Your task to perform on an android device: turn off translation in the chrome app Image 0: 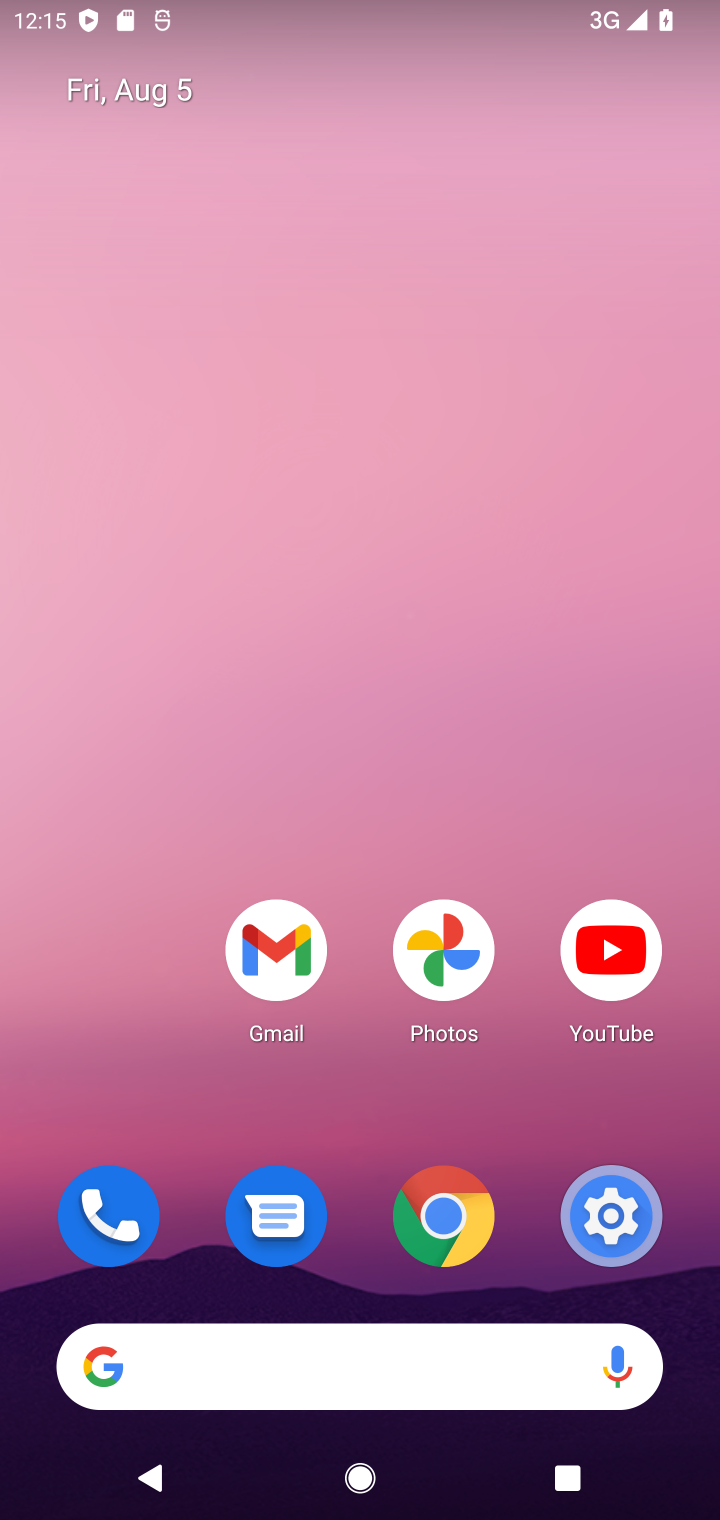
Step 0: drag from (386, 1339) to (374, 94)
Your task to perform on an android device: turn off translation in the chrome app Image 1: 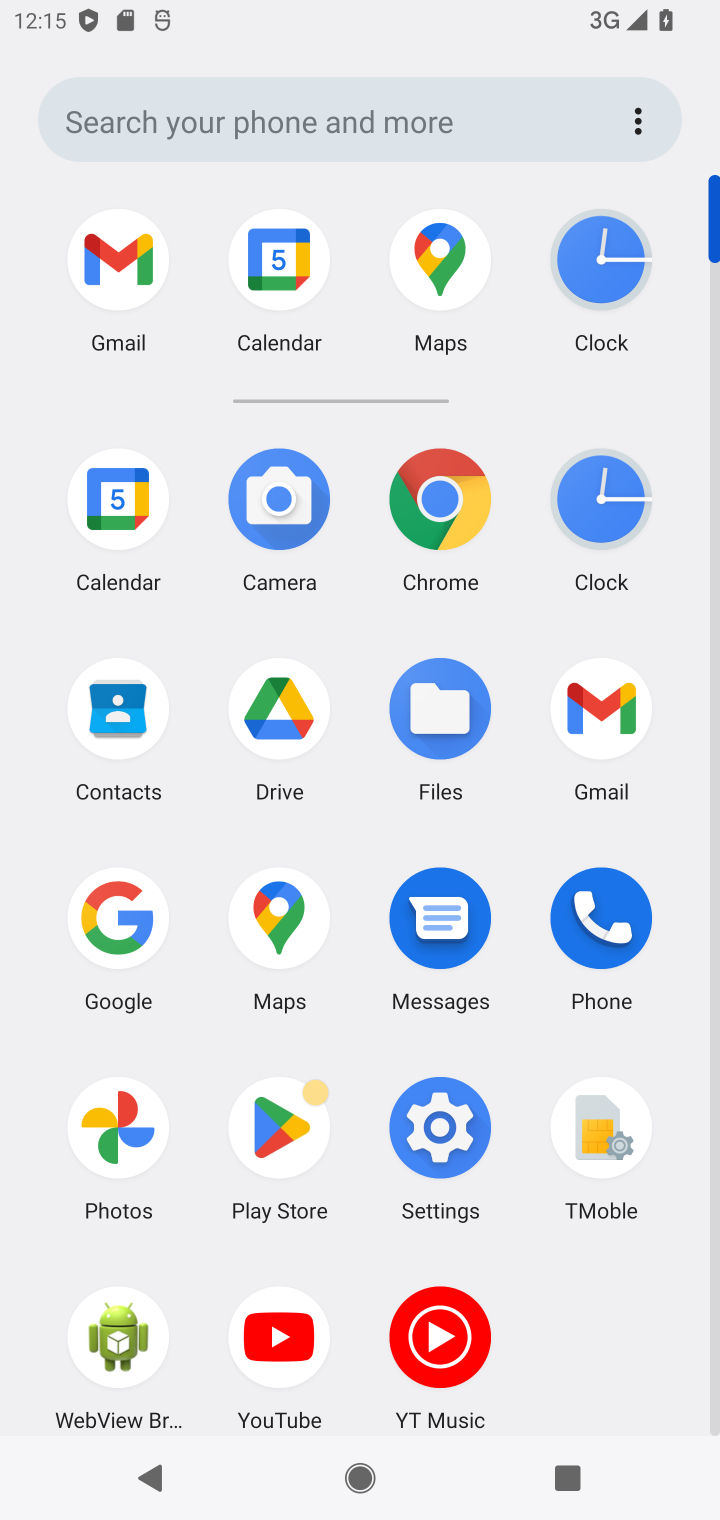
Step 1: click (454, 499)
Your task to perform on an android device: turn off translation in the chrome app Image 2: 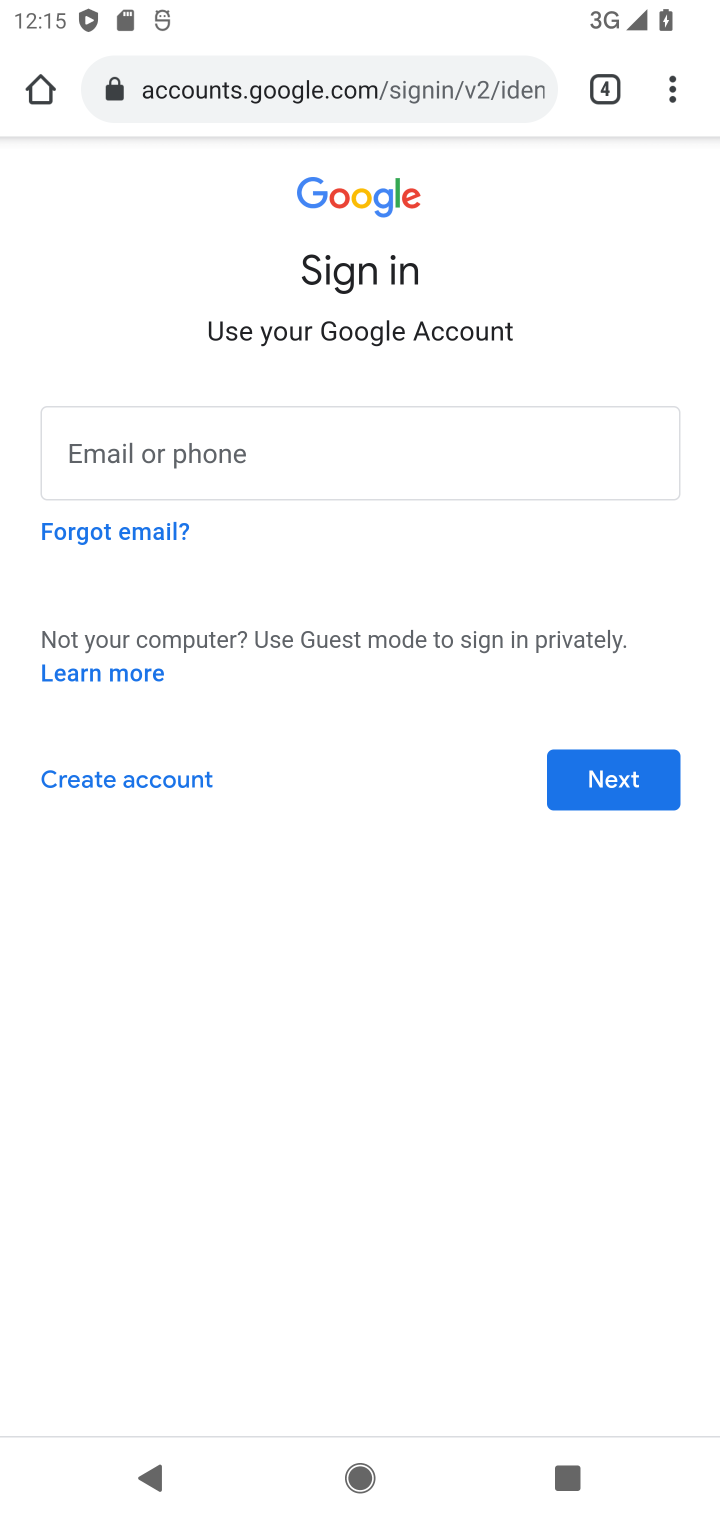
Step 2: drag from (663, 73) to (402, 1216)
Your task to perform on an android device: turn off translation in the chrome app Image 3: 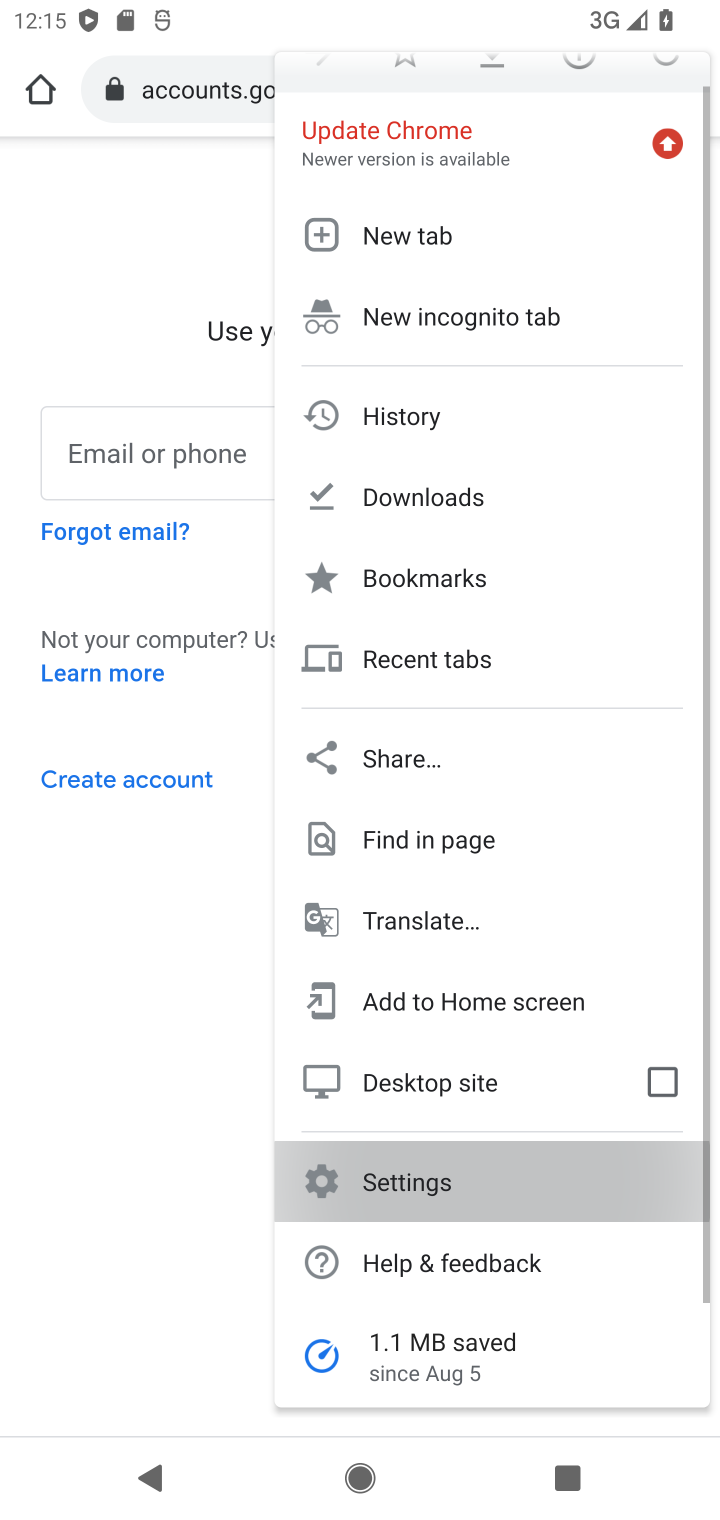
Step 3: click (402, 1216)
Your task to perform on an android device: turn off translation in the chrome app Image 4: 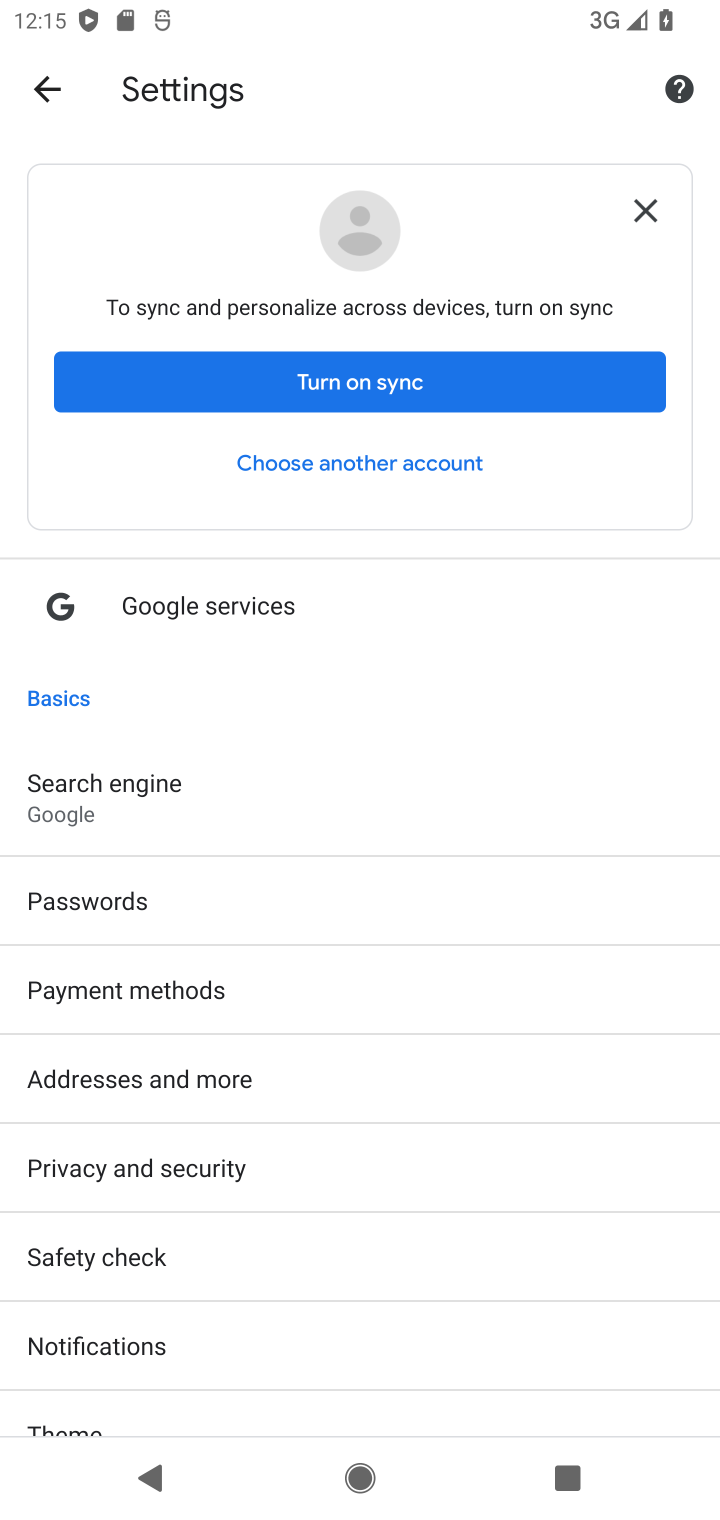
Step 4: drag from (186, 1340) to (290, 620)
Your task to perform on an android device: turn off translation in the chrome app Image 5: 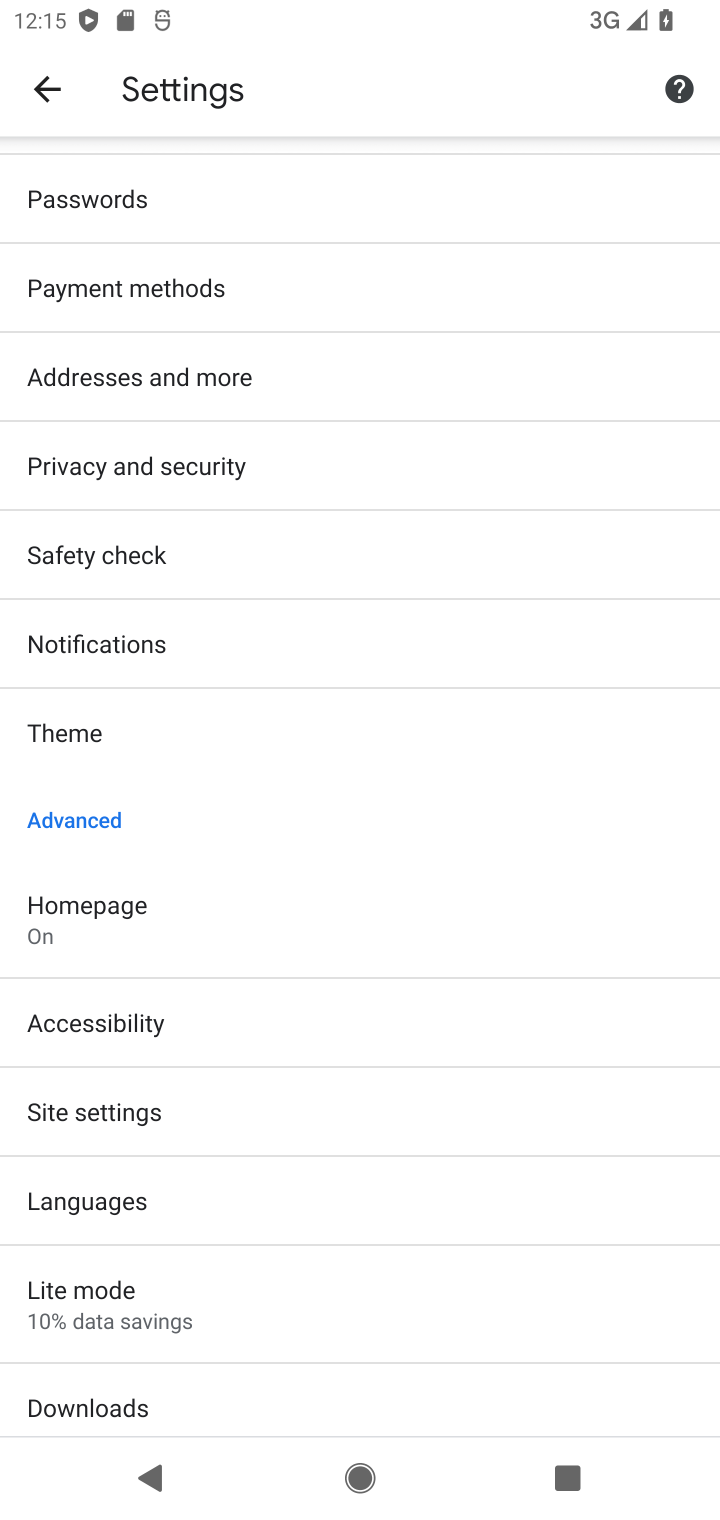
Step 5: click (181, 1092)
Your task to perform on an android device: turn off translation in the chrome app Image 6: 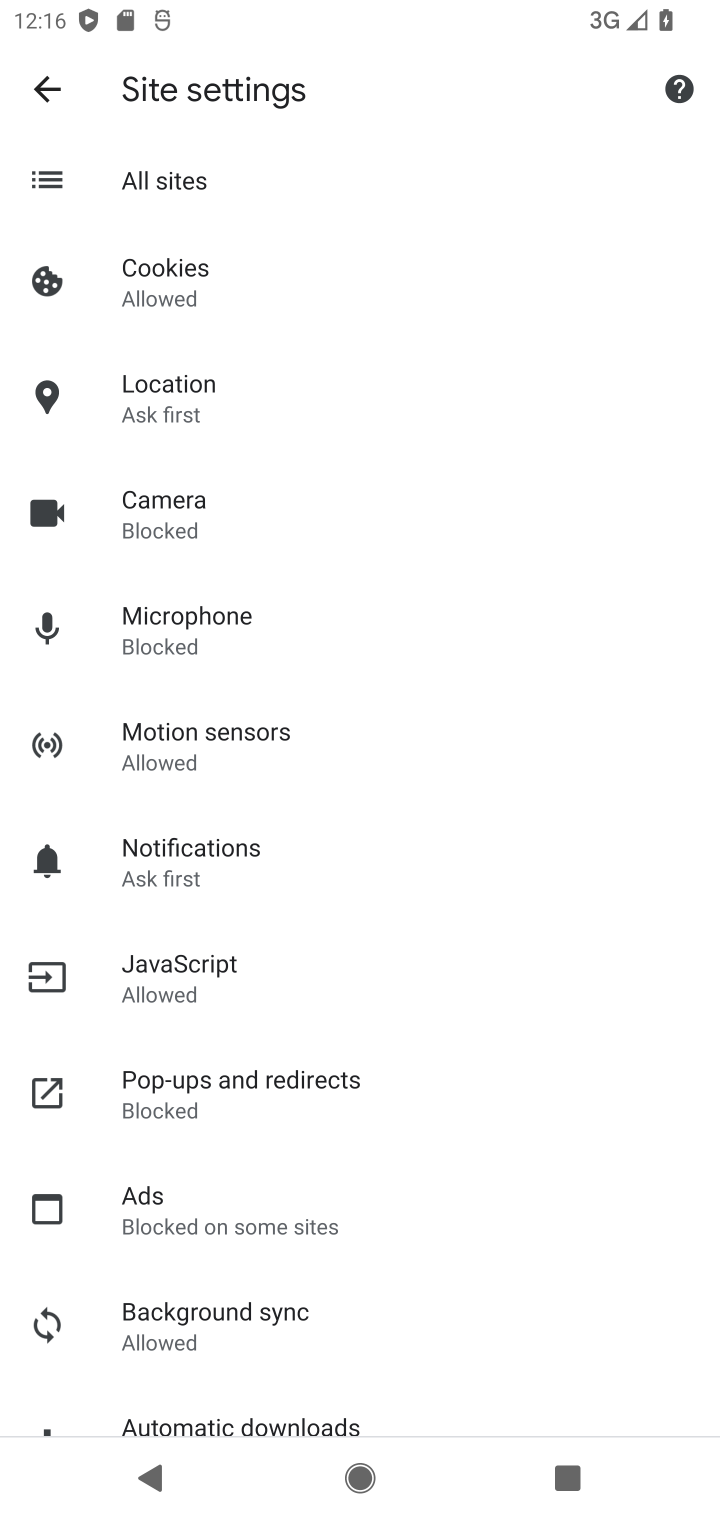
Step 6: press home button
Your task to perform on an android device: turn off translation in the chrome app Image 7: 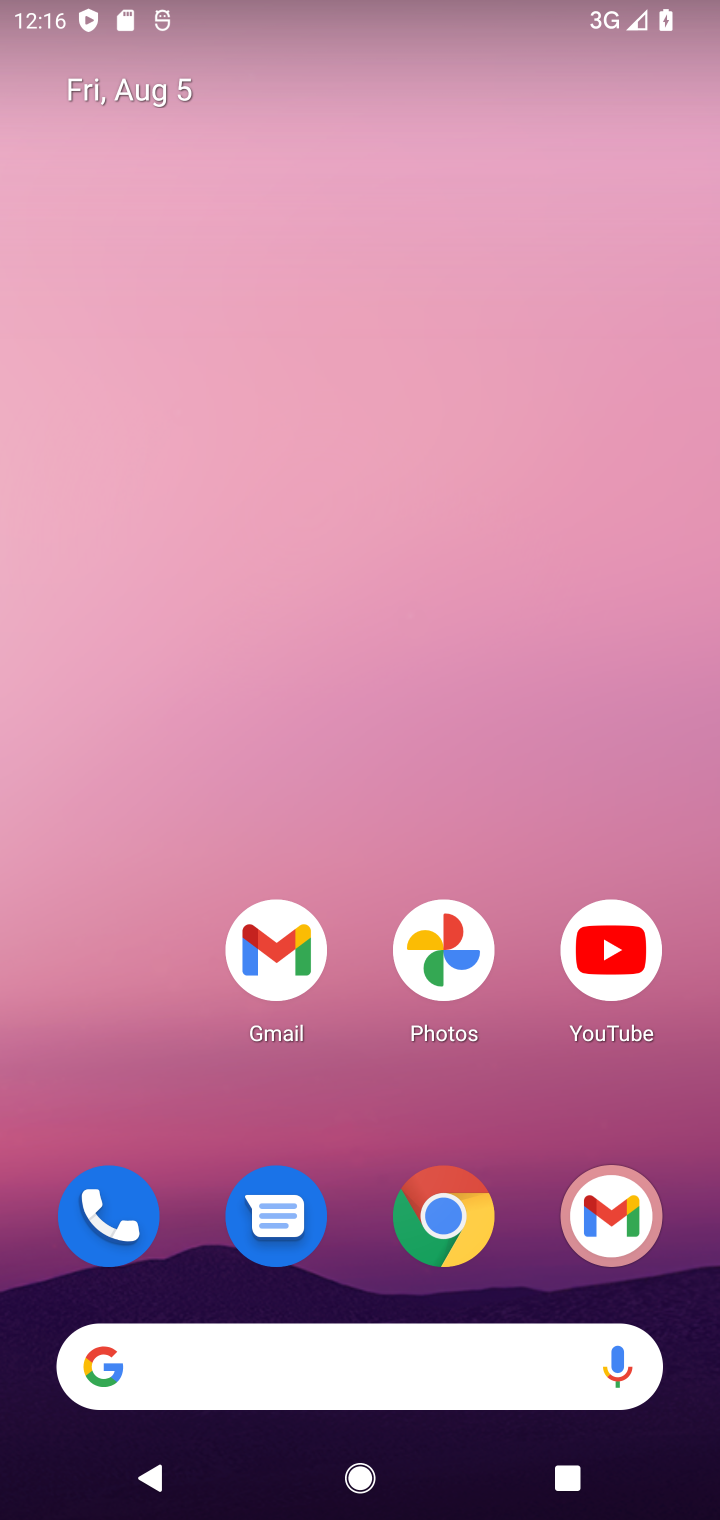
Step 7: drag from (456, 1388) to (443, 333)
Your task to perform on an android device: turn off translation in the chrome app Image 8: 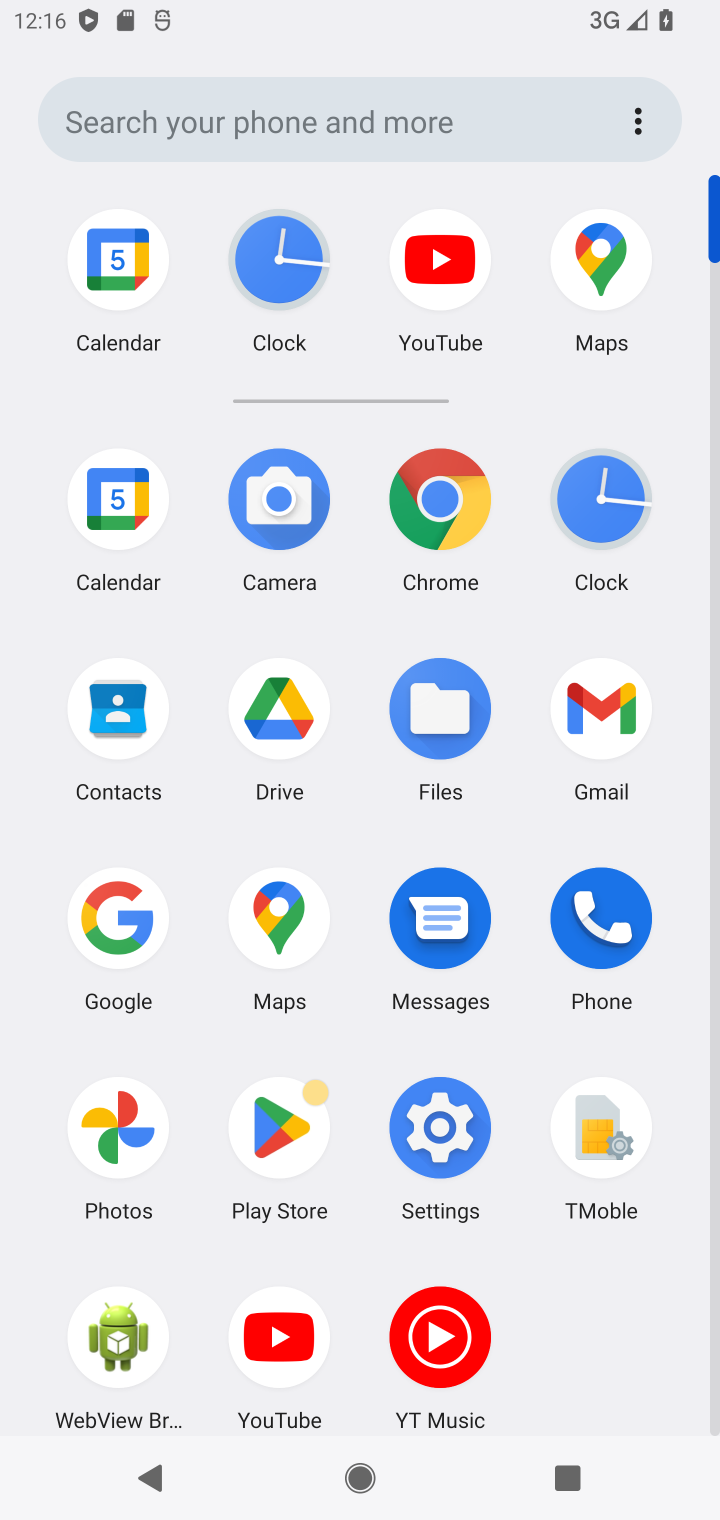
Step 8: click (450, 476)
Your task to perform on an android device: turn off translation in the chrome app Image 9: 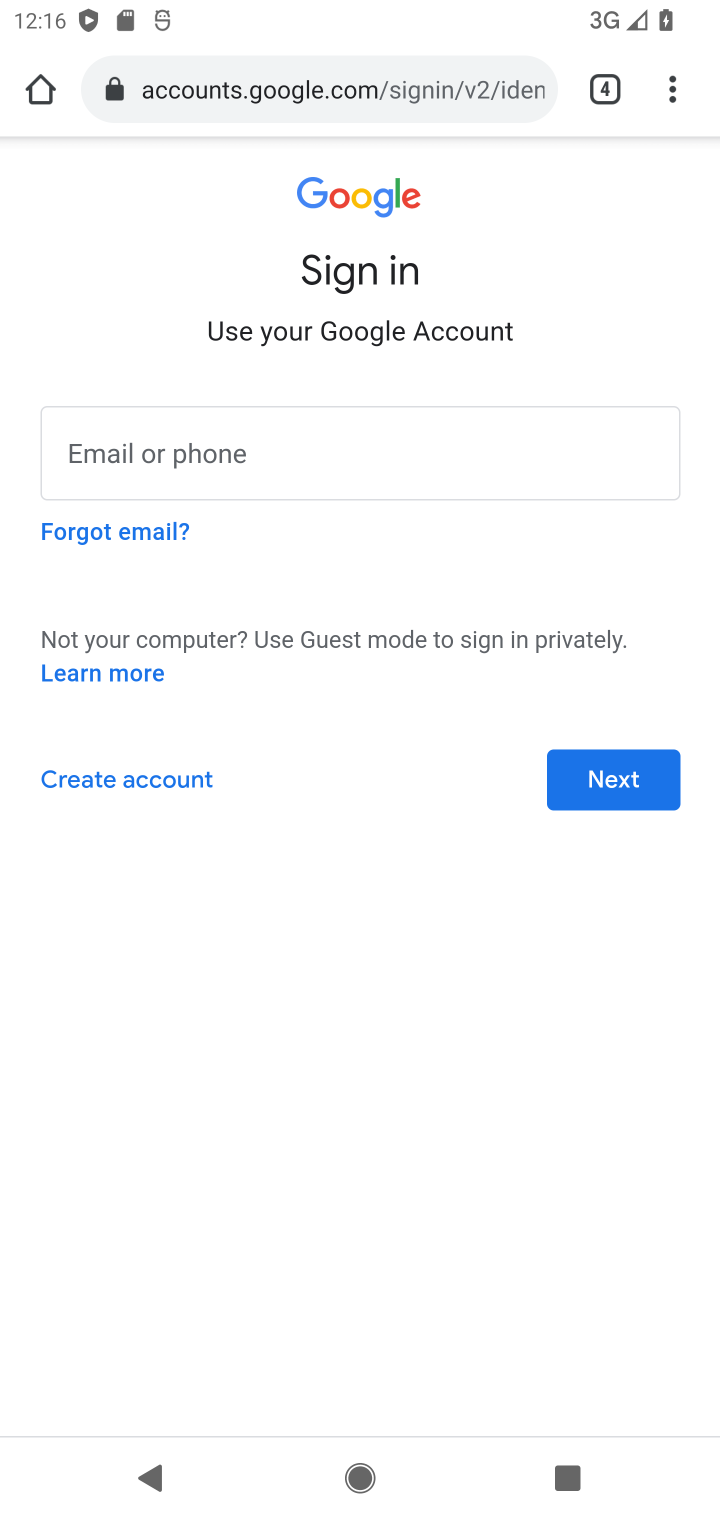
Step 9: drag from (668, 73) to (387, 1215)
Your task to perform on an android device: turn off translation in the chrome app Image 10: 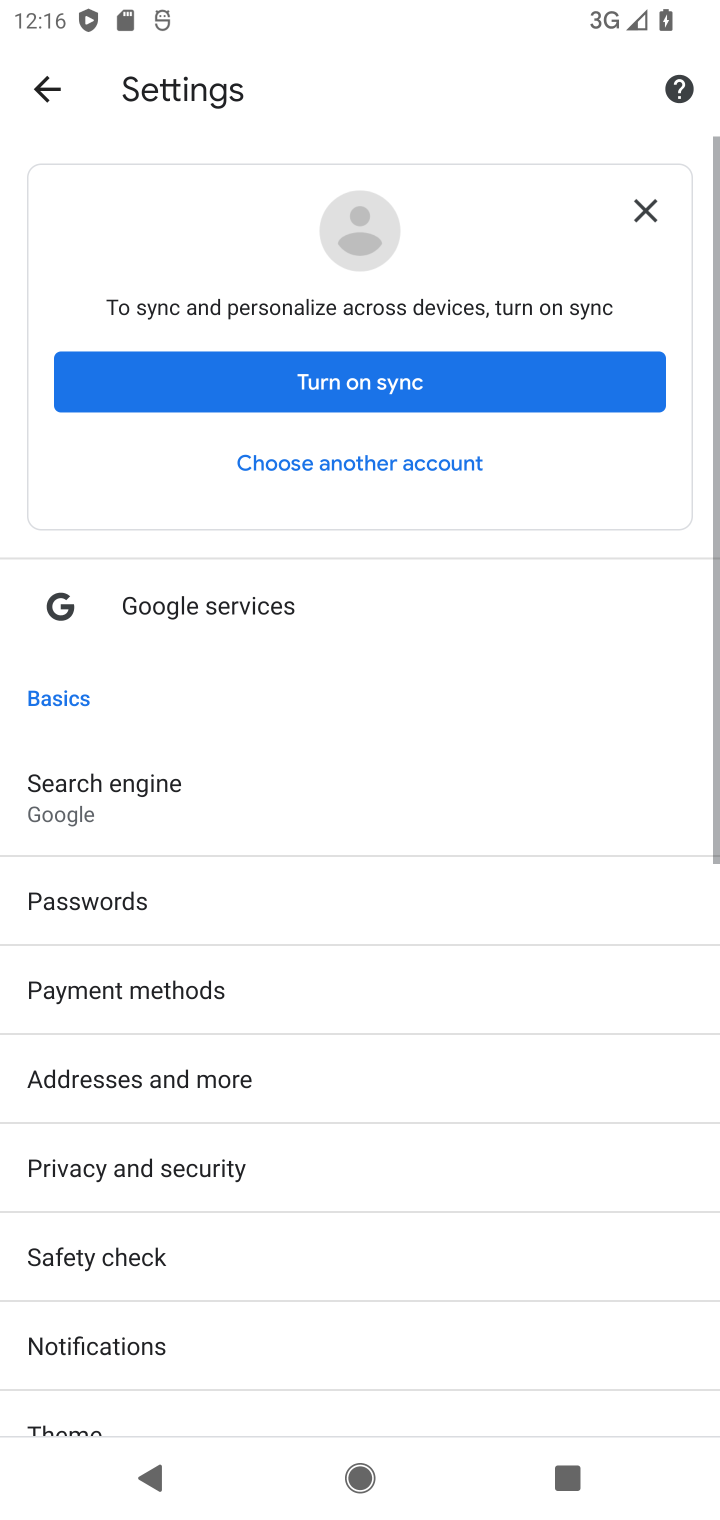
Step 10: drag from (287, 1379) to (467, 405)
Your task to perform on an android device: turn off translation in the chrome app Image 11: 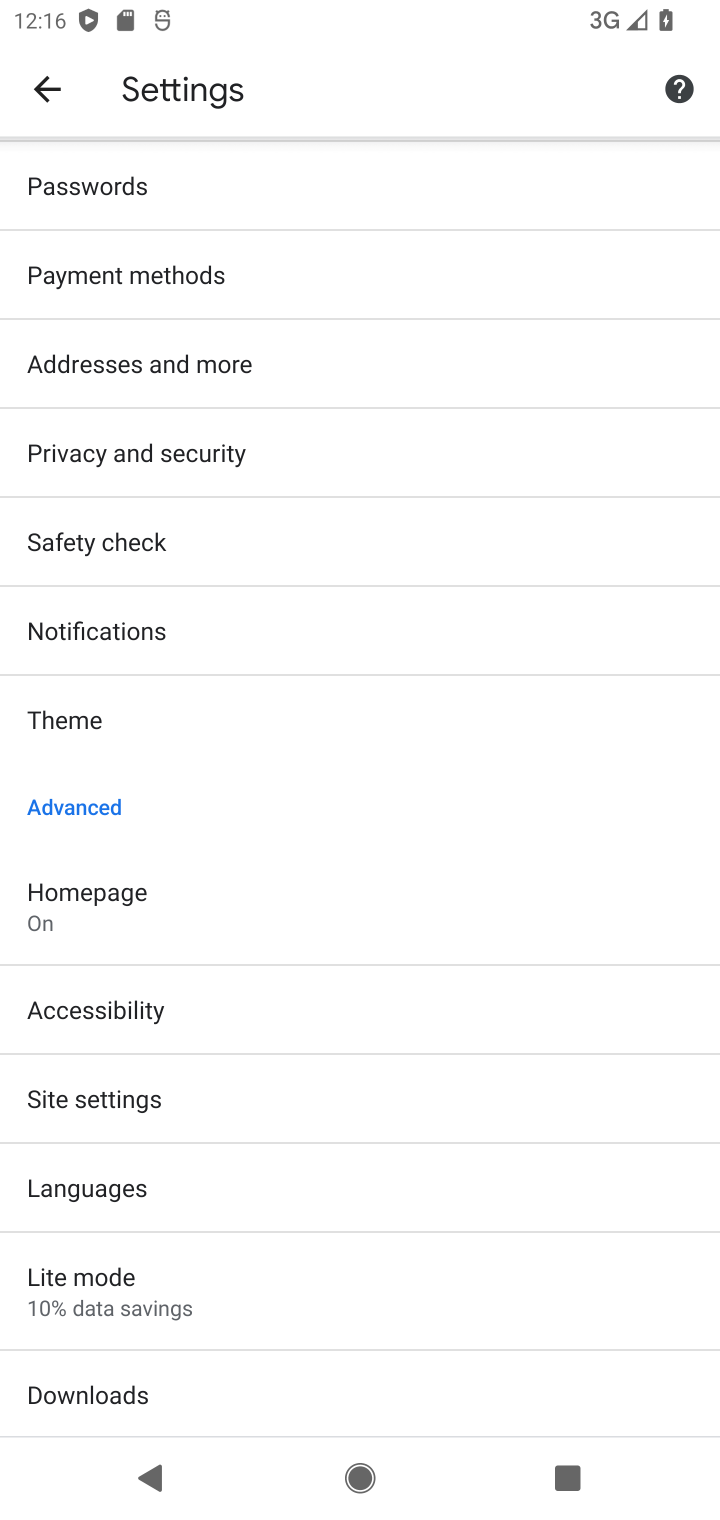
Step 11: click (160, 1204)
Your task to perform on an android device: turn off translation in the chrome app Image 12: 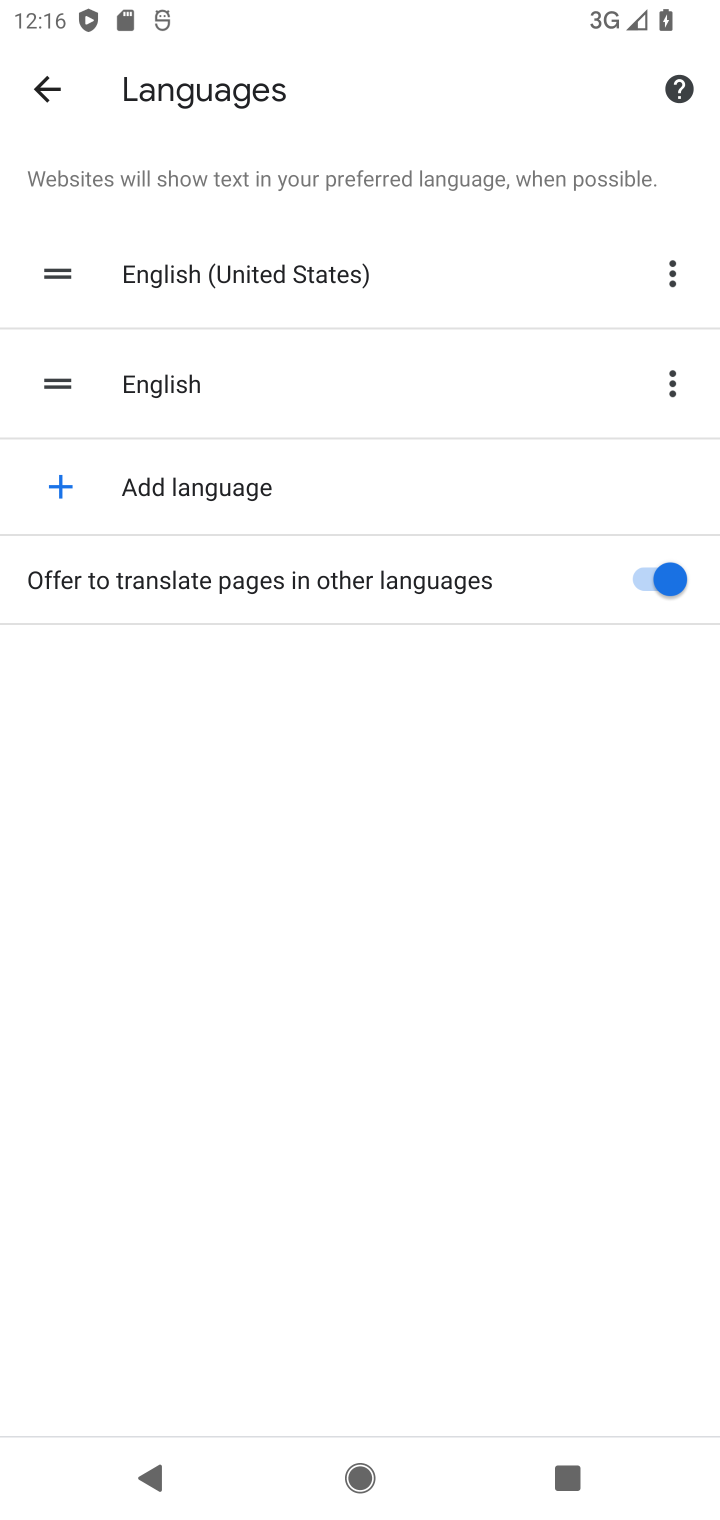
Step 12: click (654, 573)
Your task to perform on an android device: turn off translation in the chrome app Image 13: 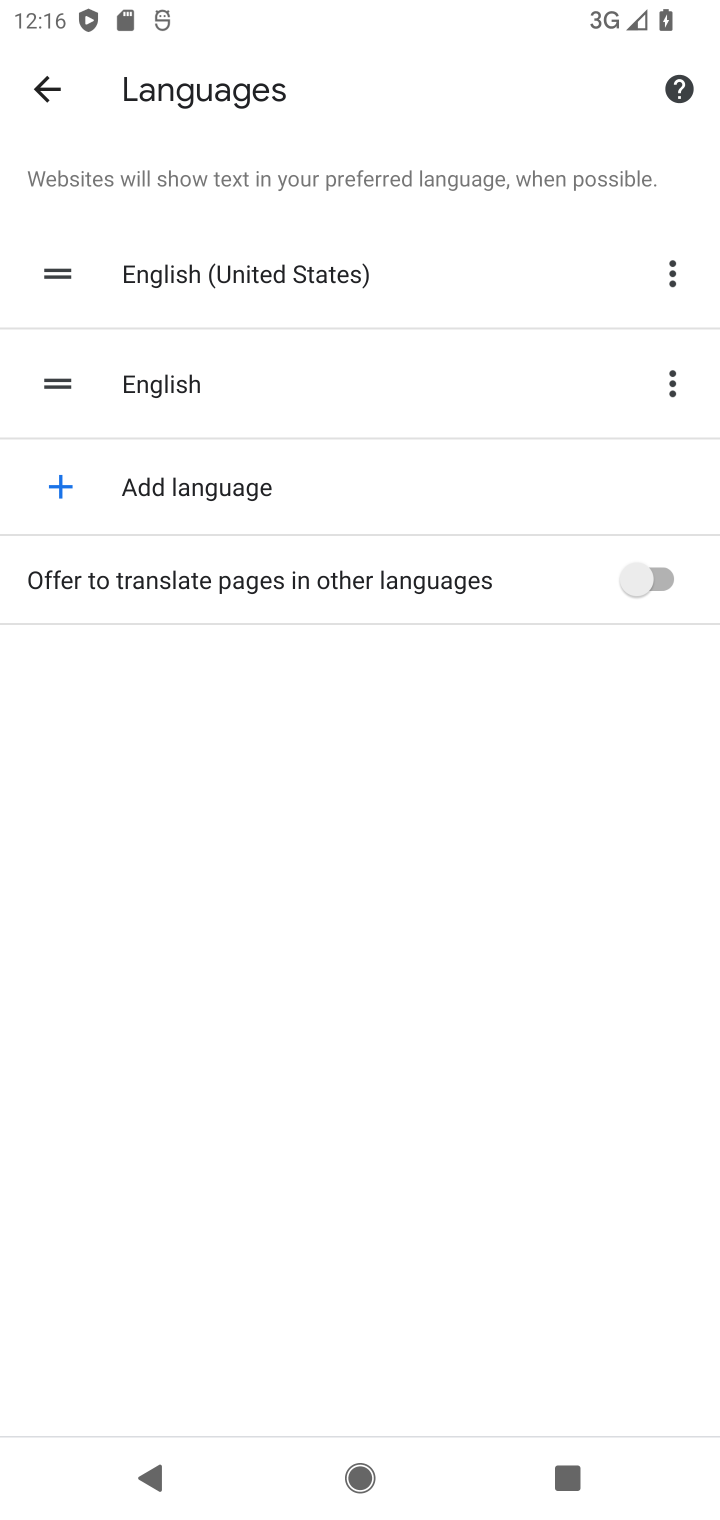
Step 13: task complete